Your task to perform on an android device: check the backup settings in the google photos Image 0: 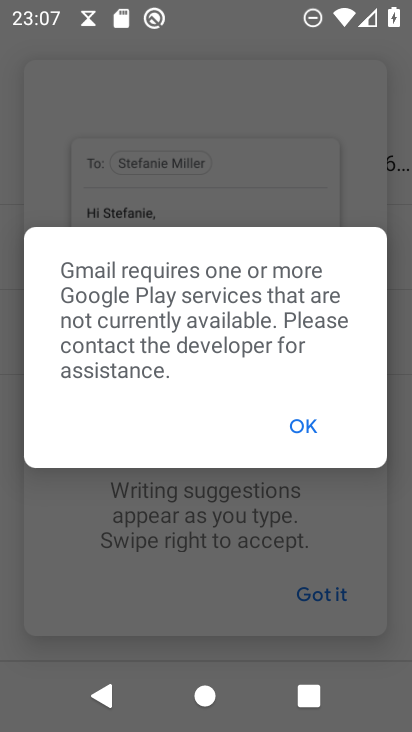
Step 0: press home button
Your task to perform on an android device: check the backup settings in the google photos Image 1: 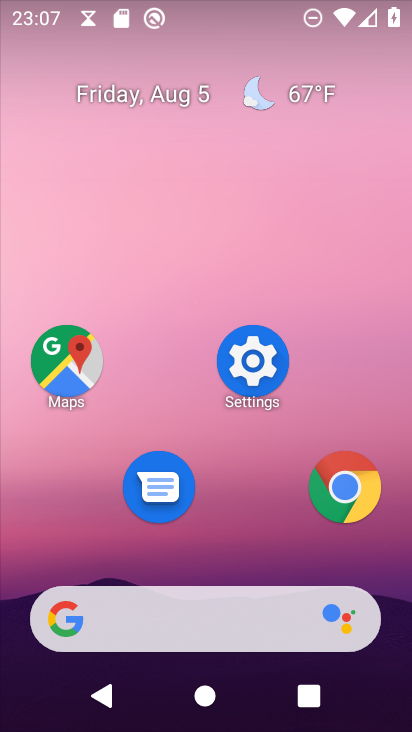
Step 1: drag from (204, 633) to (360, 116)
Your task to perform on an android device: check the backup settings in the google photos Image 2: 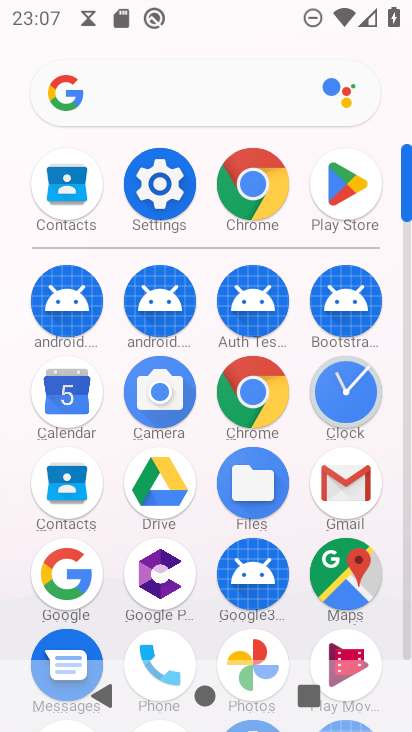
Step 2: drag from (210, 563) to (360, 189)
Your task to perform on an android device: check the backup settings in the google photos Image 3: 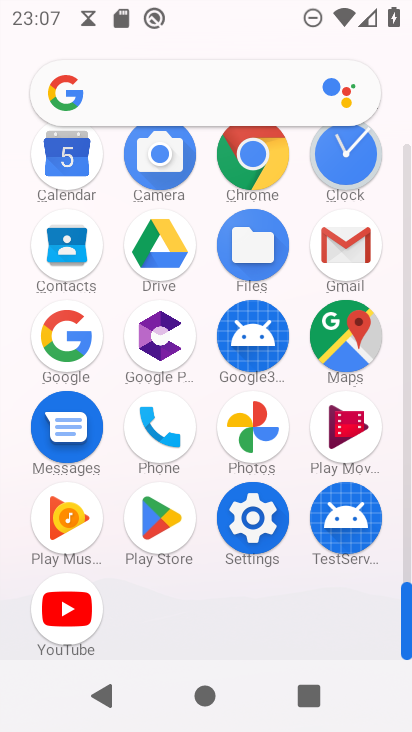
Step 3: click (255, 422)
Your task to perform on an android device: check the backup settings in the google photos Image 4: 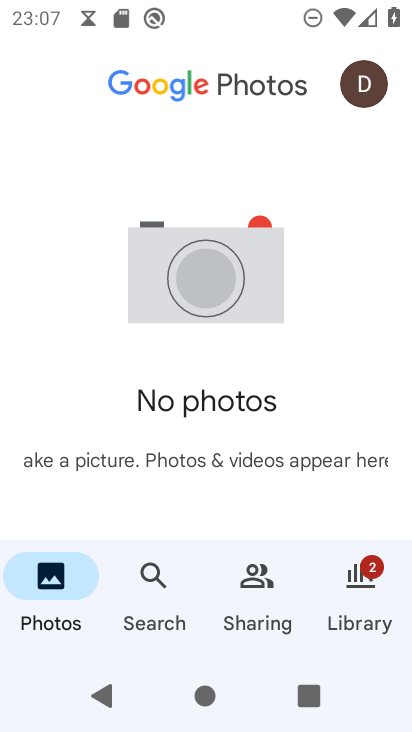
Step 4: click (371, 86)
Your task to perform on an android device: check the backup settings in the google photos Image 5: 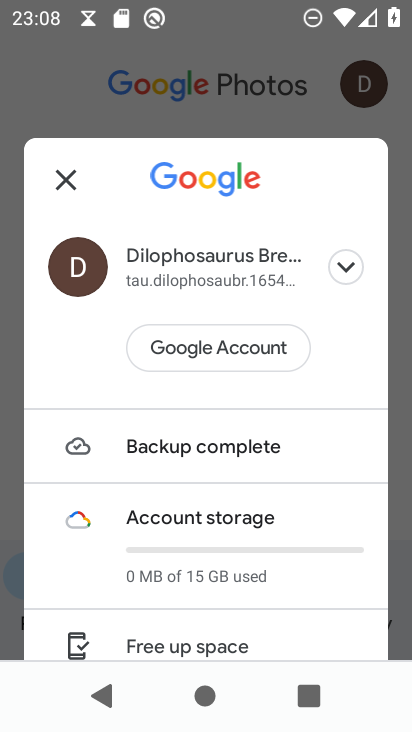
Step 5: drag from (273, 635) to (350, 164)
Your task to perform on an android device: check the backup settings in the google photos Image 6: 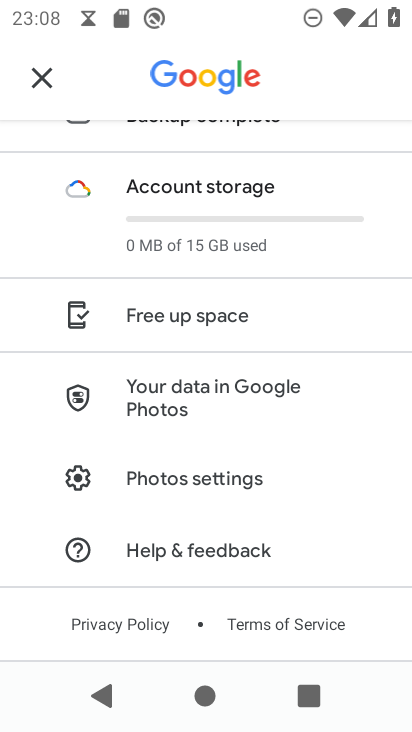
Step 6: click (218, 477)
Your task to perform on an android device: check the backup settings in the google photos Image 7: 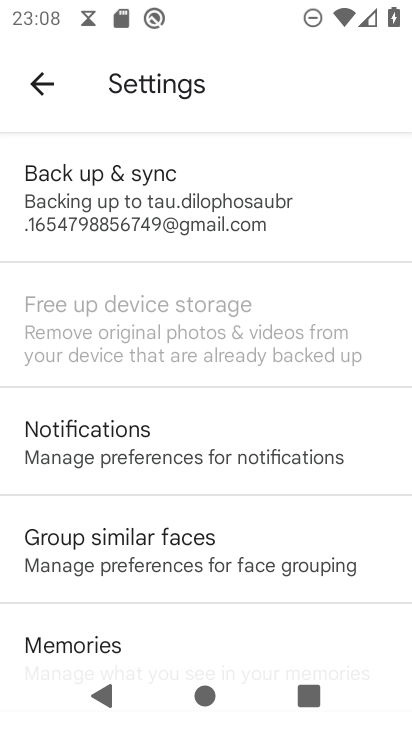
Step 7: click (195, 228)
Your task to perform on an android device: check the backup settings in the google photos Image 8: 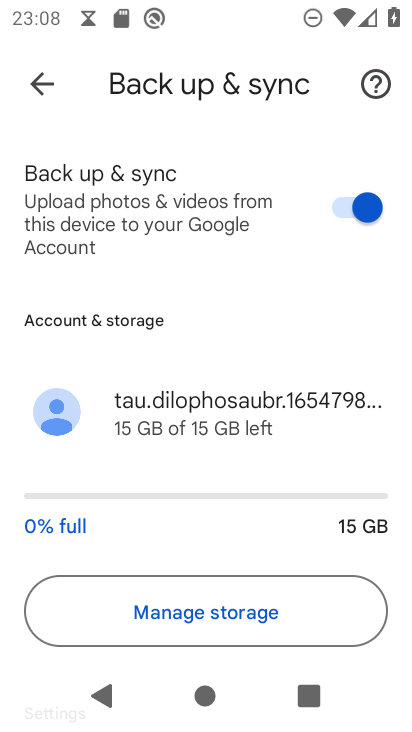
Step 8: task complete